Your task to perform on an android device: open app "Google Docs" Image 0: 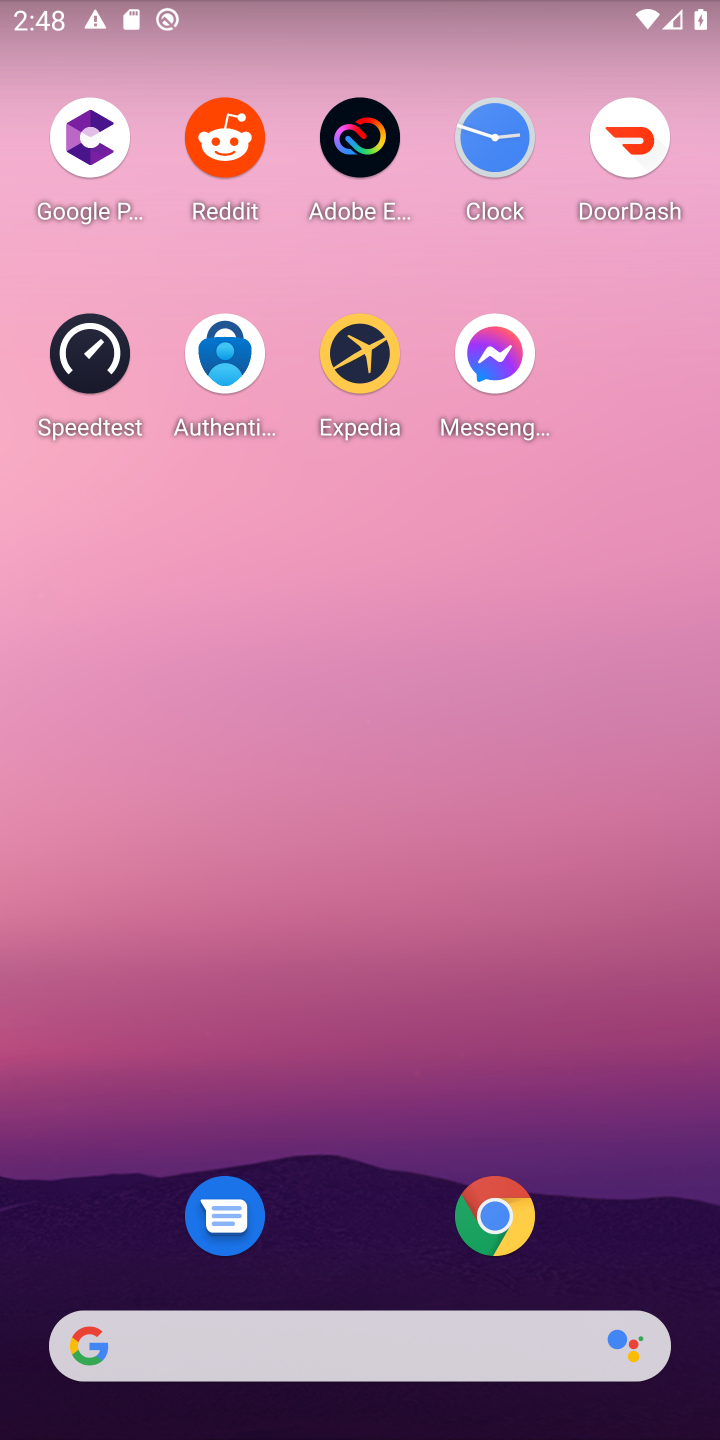
Step 0: drag from (636, 1252) to (514, 125)
Your task to perform on an android device: open app "Google Docs" Image 1: 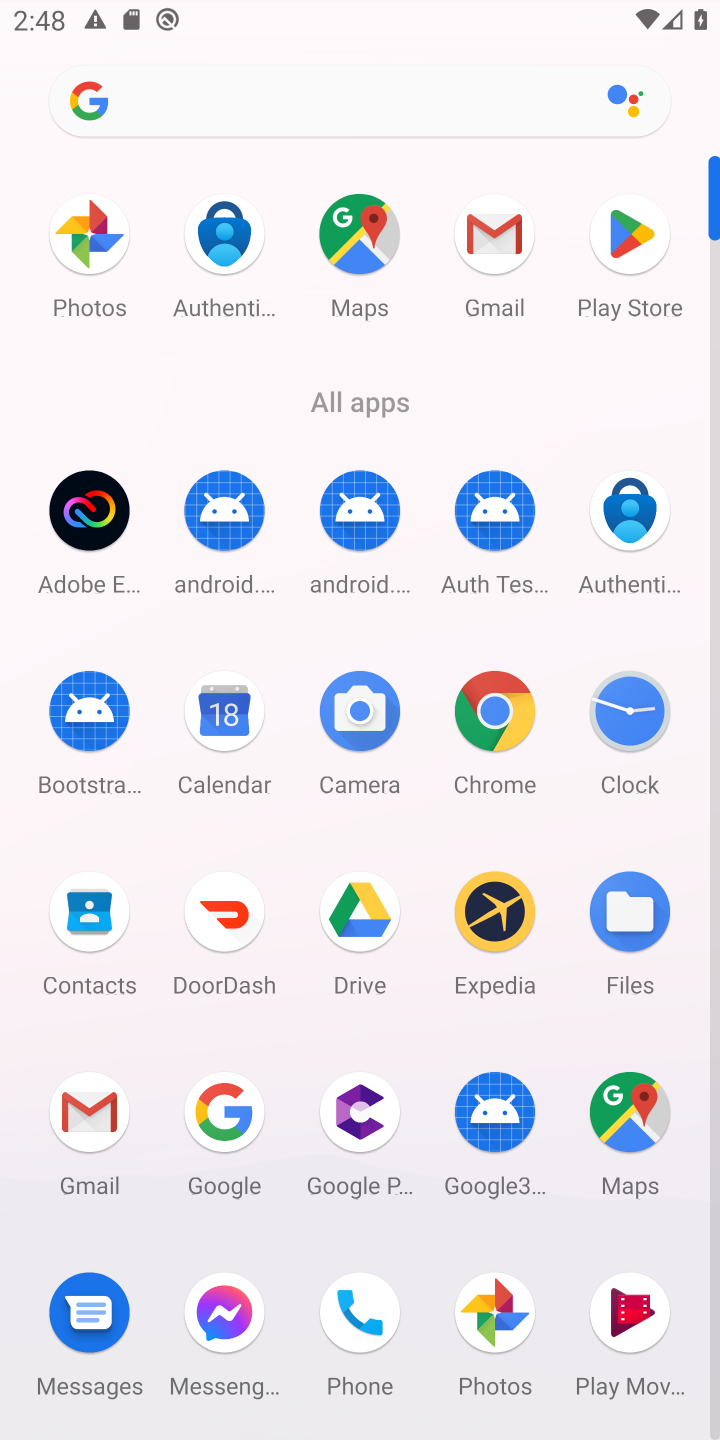
Step 1: drag from (302, 1237) to (333, 529)
Your task to perform on an android device: open app "Google Docs" Image 2: 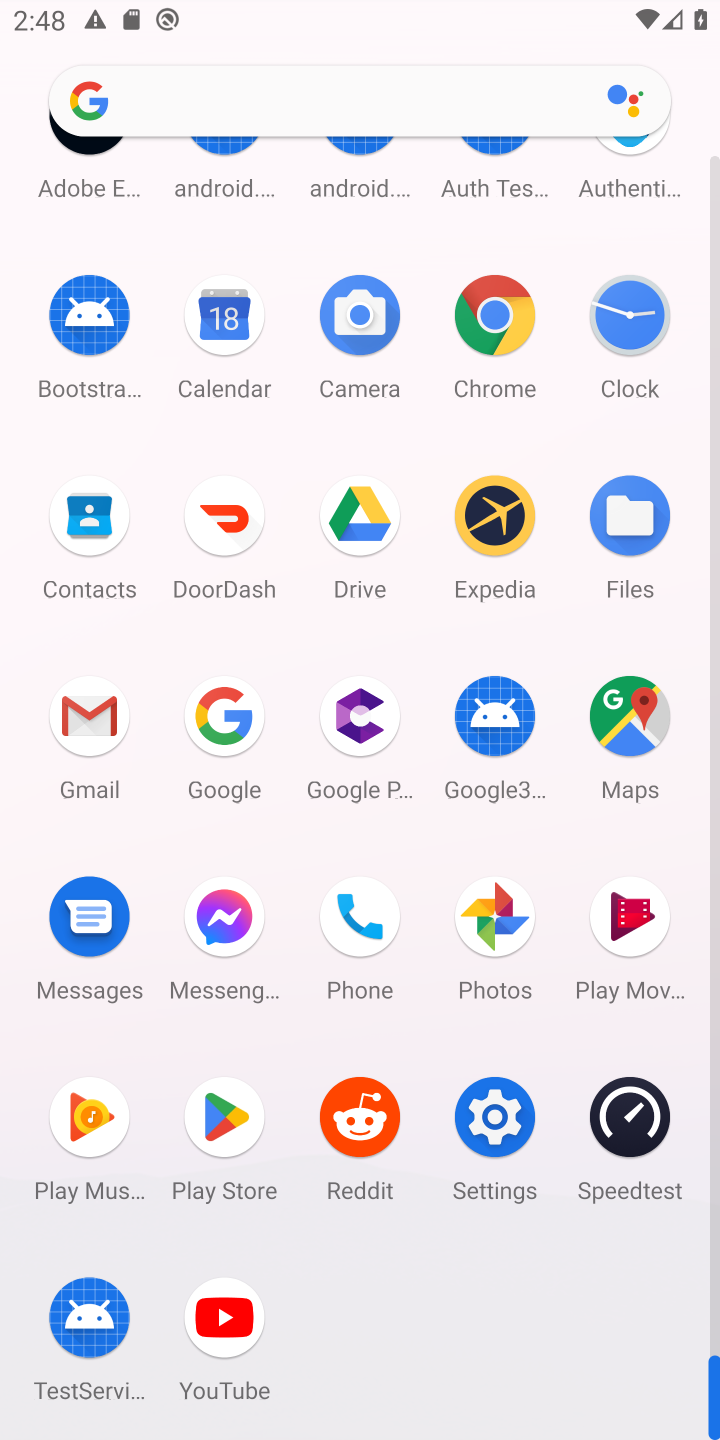
Step 2: click (227, 1118)
Your task to perform on an android device: open app "Google Docs" Image 3: 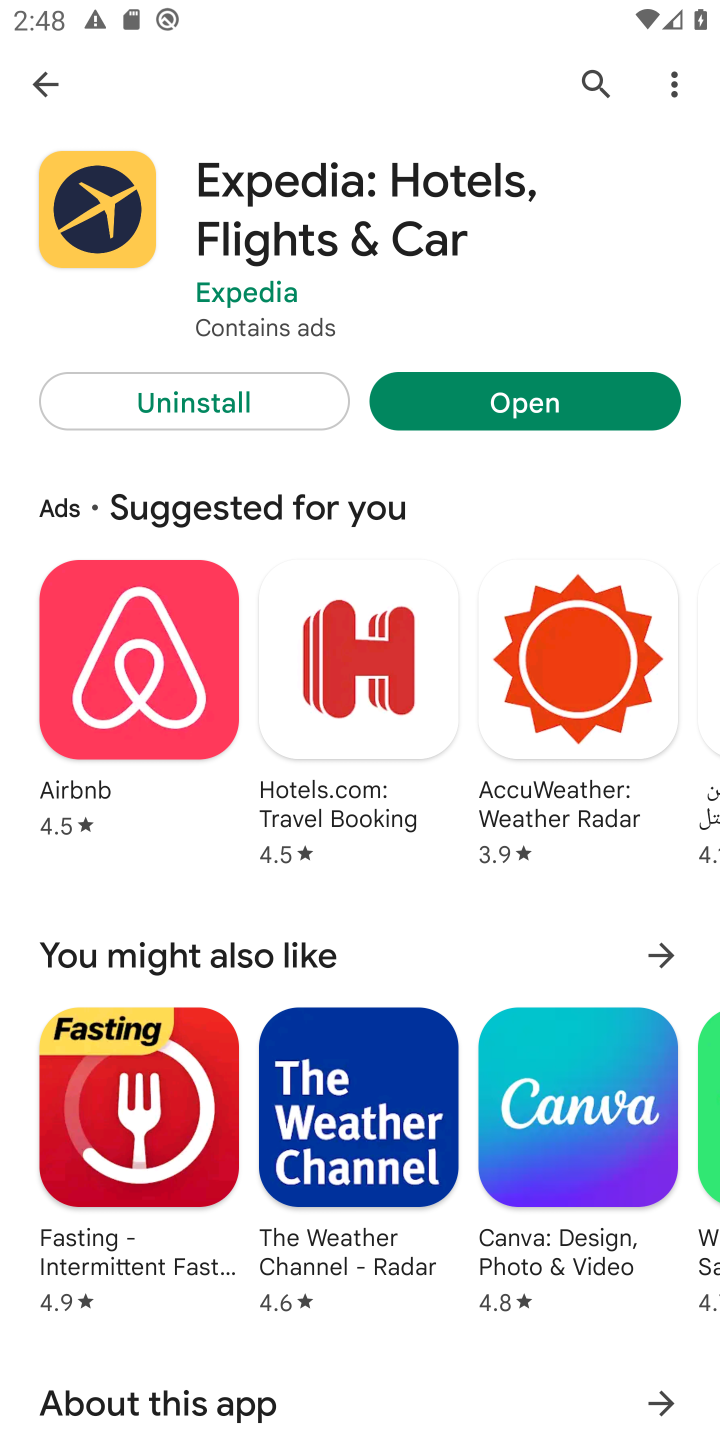
Step 3: click (583, 81)
Your task to perform on an android device: open app "Google Docs" Image 4: 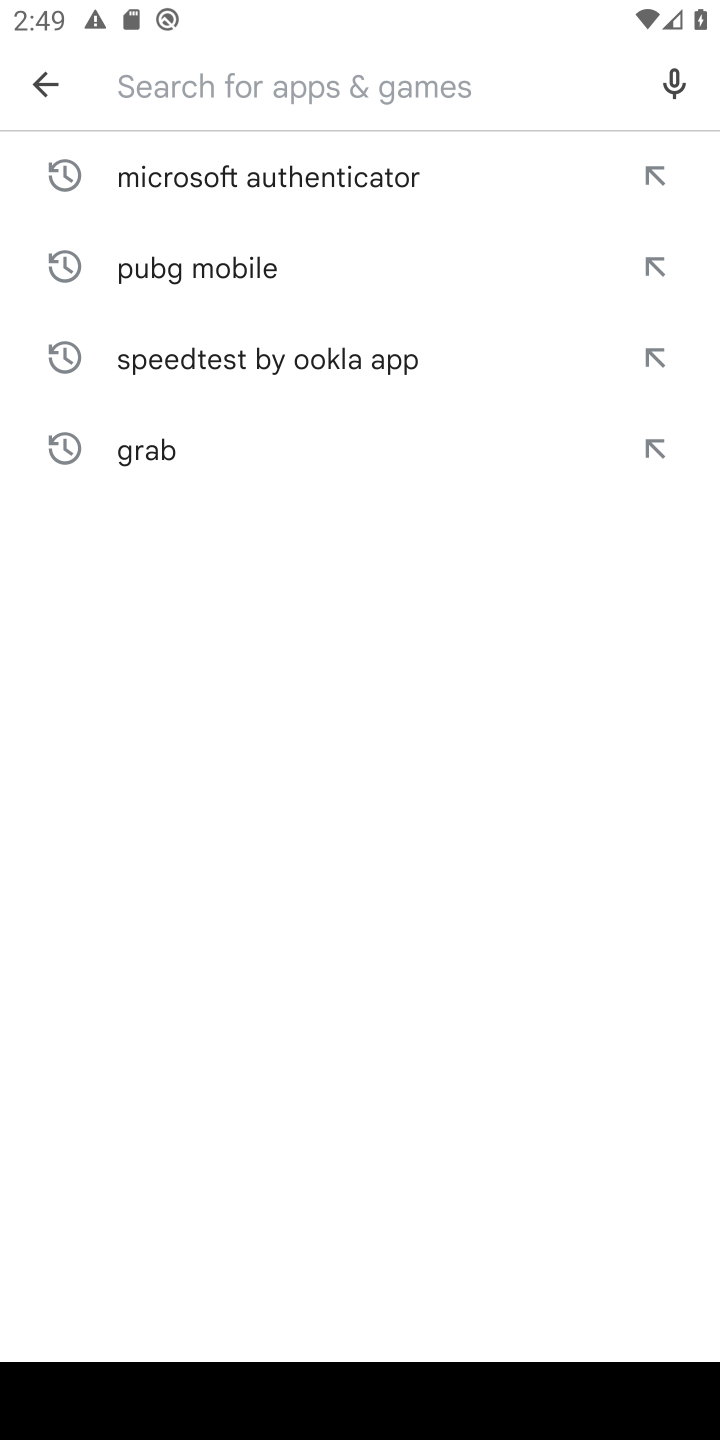
Step 4: type "Google Docs"
Your task to perform on an android device: open app "Google Docs" Image 5: 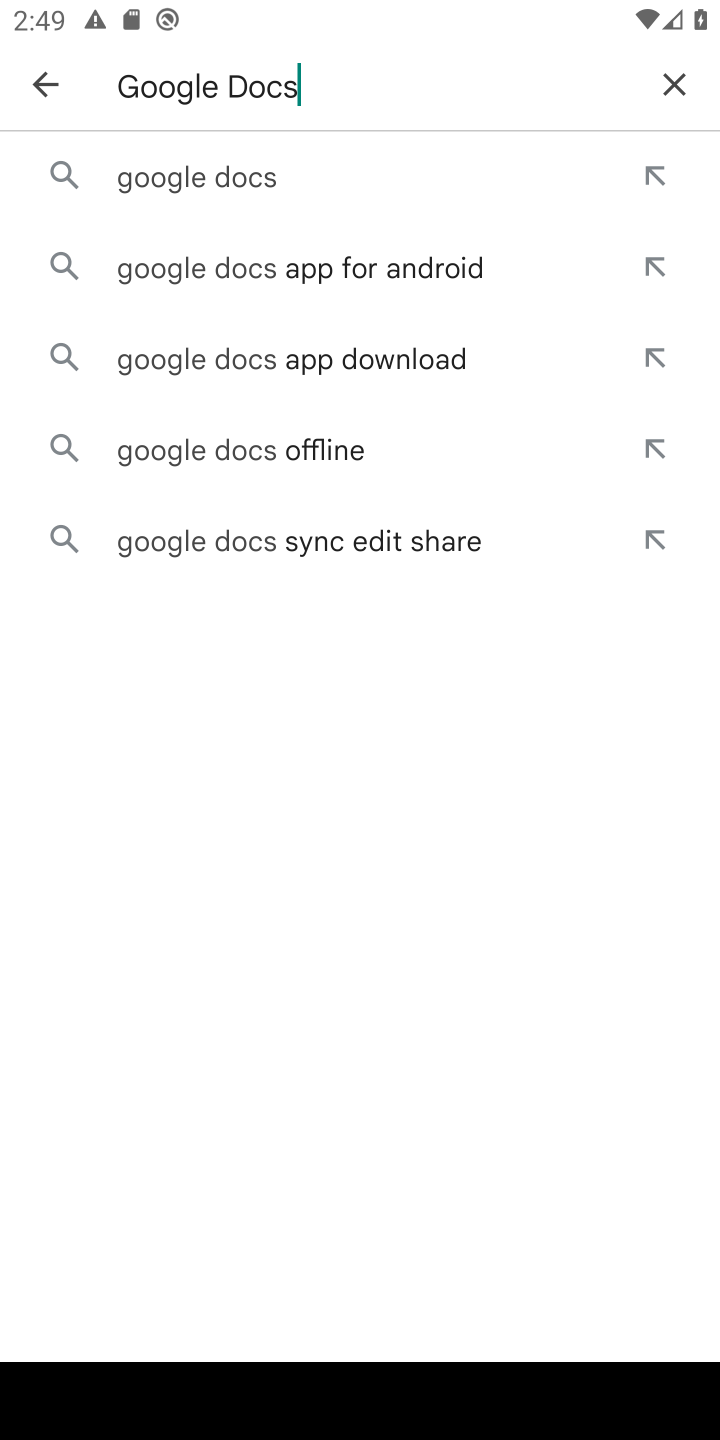
Step 5: click (180, 172)
Your task to perform on an android device: open app "Google Docs" Image 6: 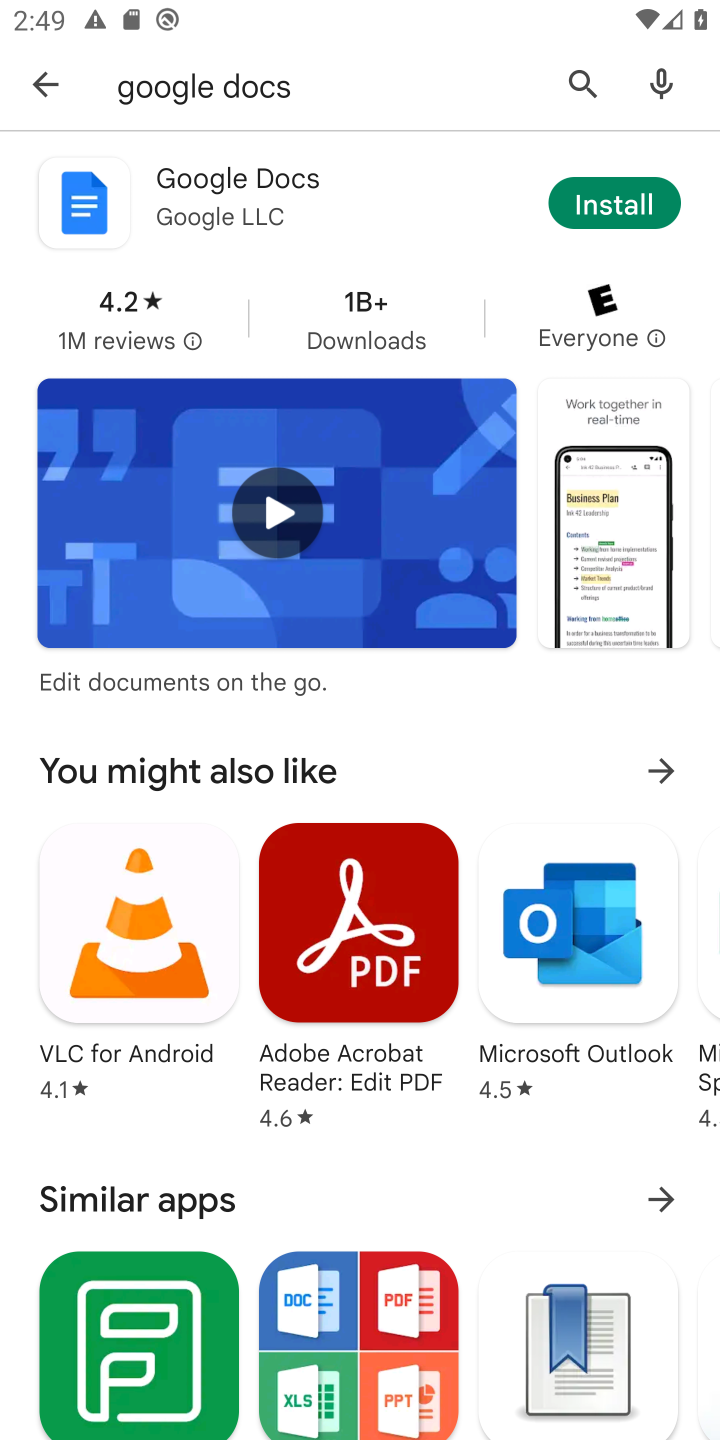
Step 6: task complete